Your task to perform on an android device: check out phone information Image 0: 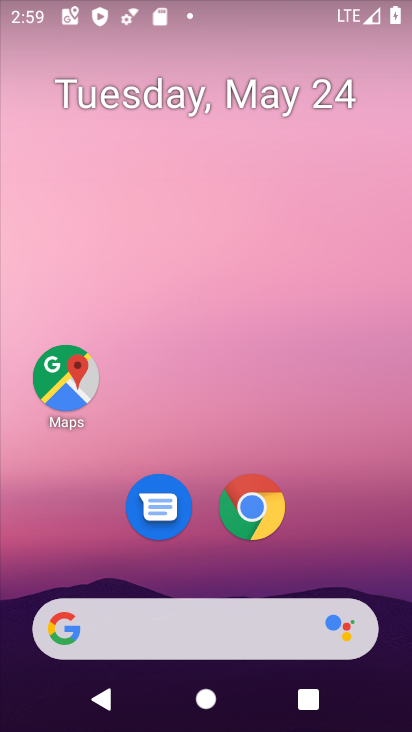
Step 0: drag from (221, 515) to (302, 15)
Your task to perform on an android device: check out phone information Image 1: 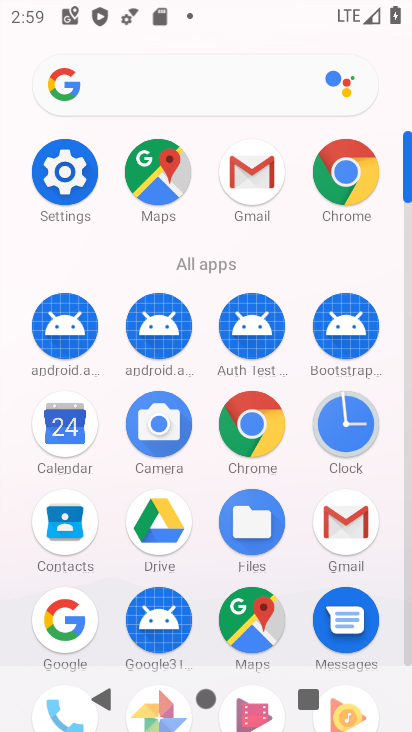
Step 1: click (60, 168)
Your task to perform on an android device: check out phone information Image 2: 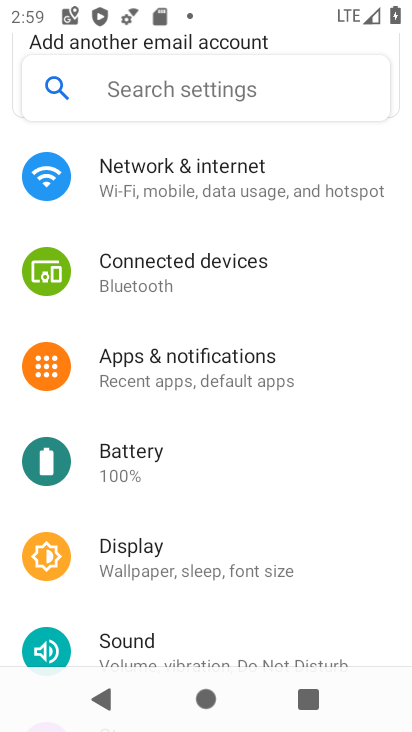
Step 2: drag from (168, 638) to (298, 13)
Your task to perform on an android device: check out phone information Image 3: 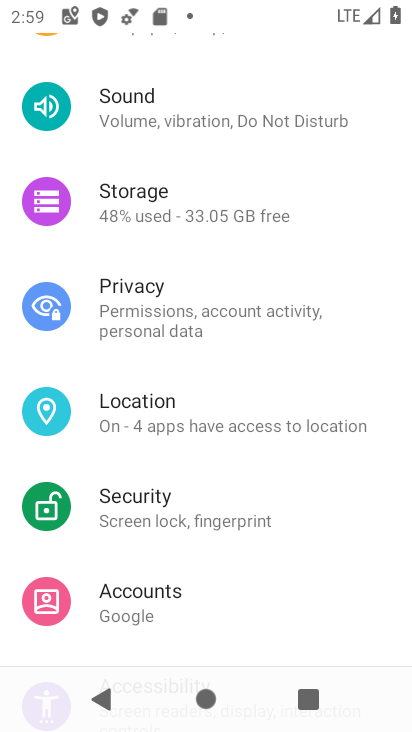
Step 3: drag from (183, 645) to (323, 4)
Your task to perform on an android device: check out phone information Image 4: 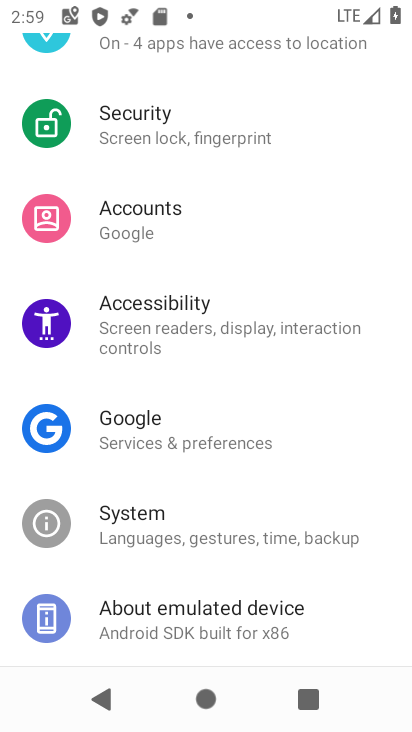
Step 4: click (198, 612)
Your task to perform on an android device: check out phone information Image 5: 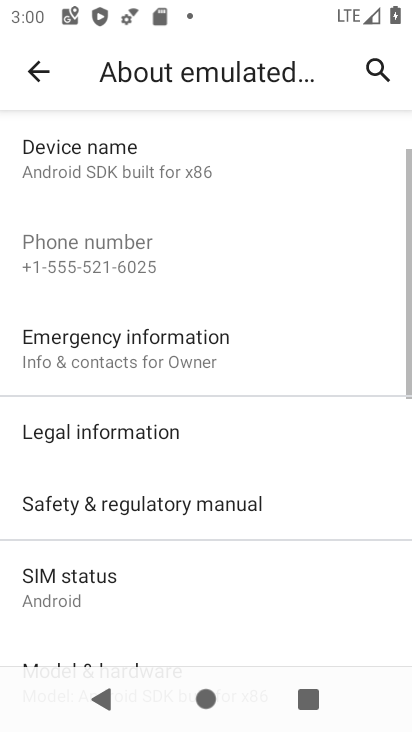
Step 5: task complete